Your task to perform on an android device: toggle improve location accuracy Image 0: 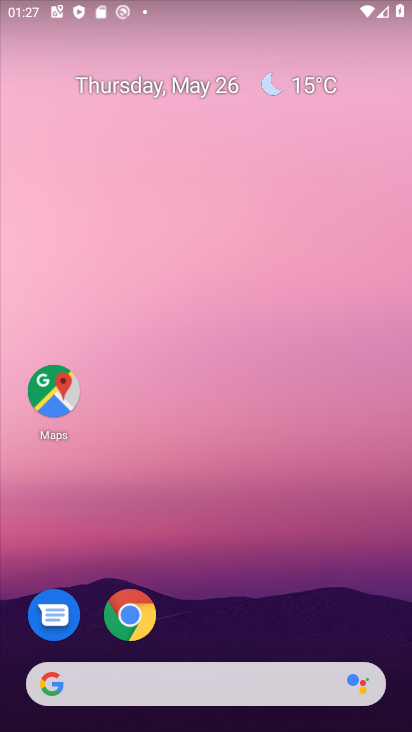
Step 0: drag from (210, 615) to (272, 81)
Your task to perform on an android device: toggle improve location accuracy Image 1: 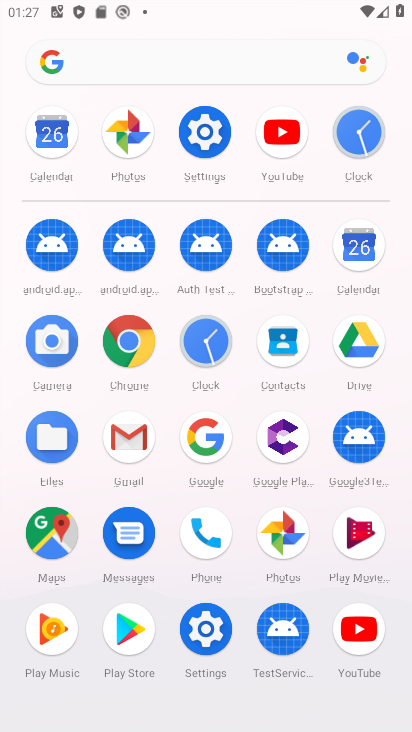
Step 1: click (207, 122)
Your task to perform on an android device: toggle improve location accuracy Image 2: 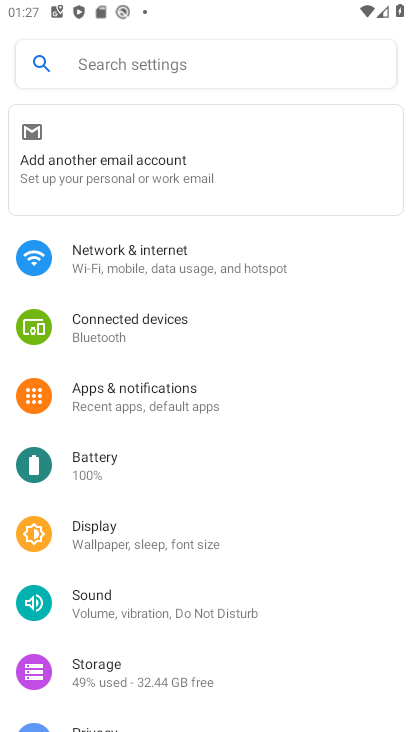
Step 2: drag from (123, 642) to (182, 159)
Your task to perform on an android device: toggle improve location accuracy Image 3: 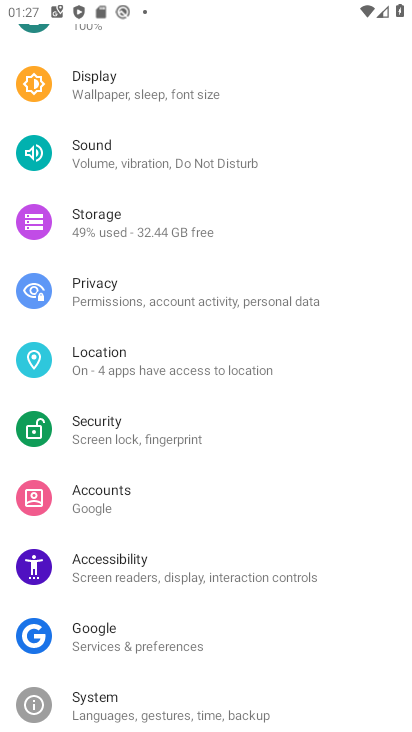
Step 3: click (133, 357)
Your task to perform on an android device: toggle improve location accuracy Image 4: 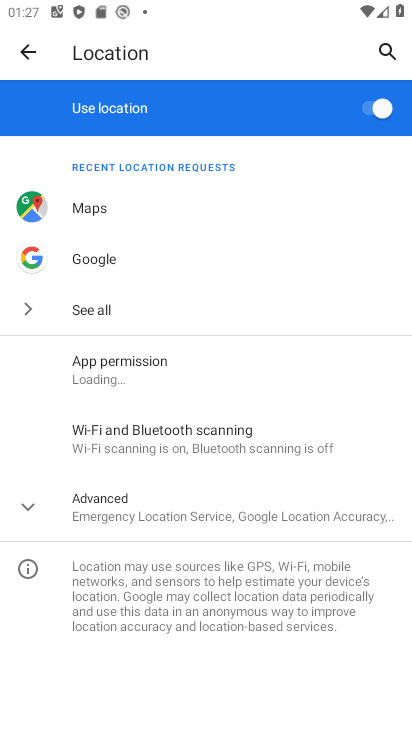
Step 4: click (201, 509)
Your task to perform on an android device: toggle improve location accuracy Image 5: 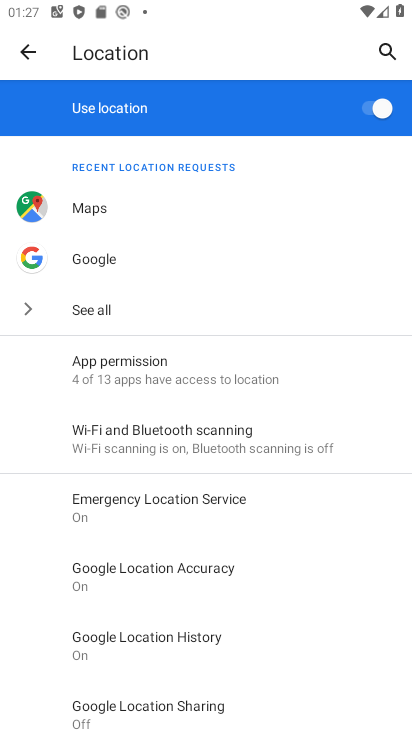
Step 5: click (162, 585)
Your task to perform on an android device: toggle improve location accuracy Image 6: 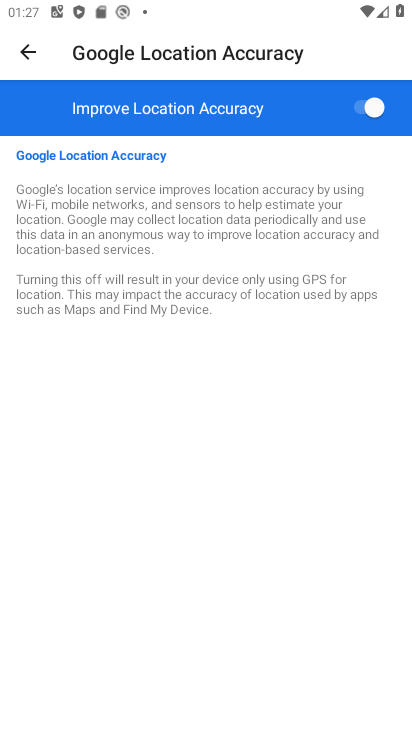
Step 6: click (360, 105)
Your task to perform on an android device: toggle improve location accuracy Image 7: 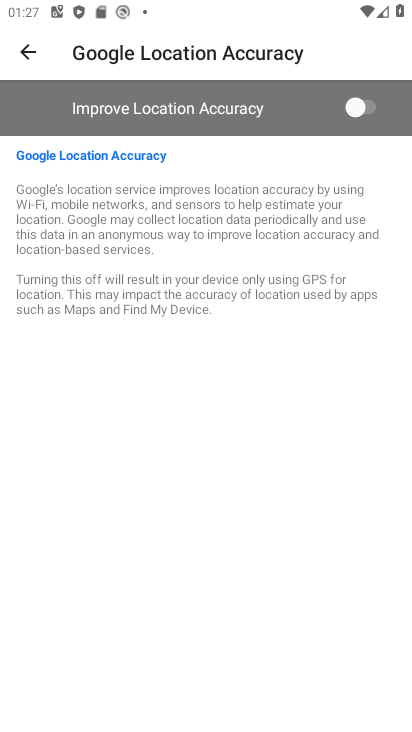
Step 7: task complete